Your task to perform on an android device: How much does the Samsung TV cost? Image 0: 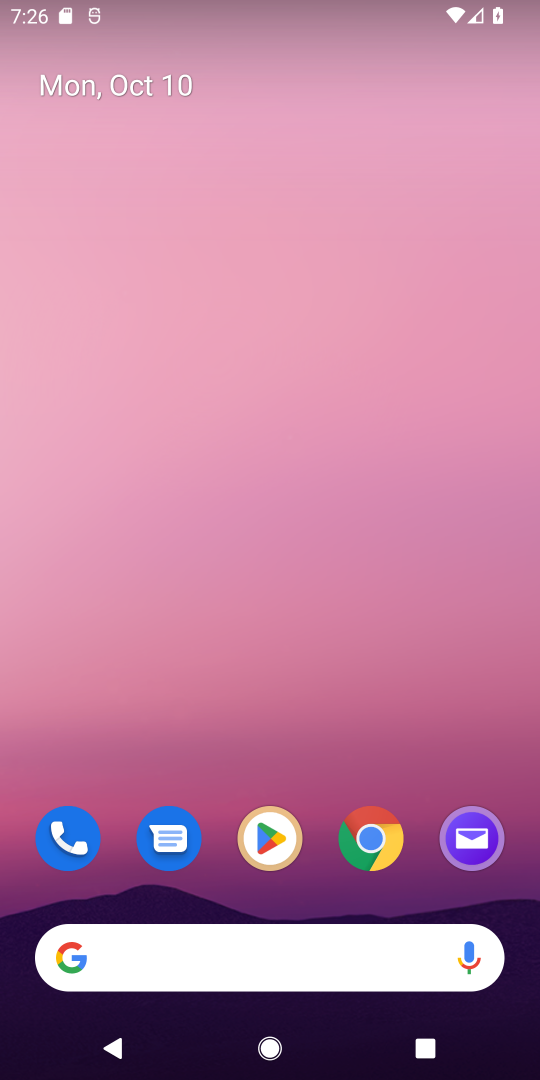
Step 0: click (371, 841)
Your task to perform on an android device: How much does the Samsung TV cost? Image 1: 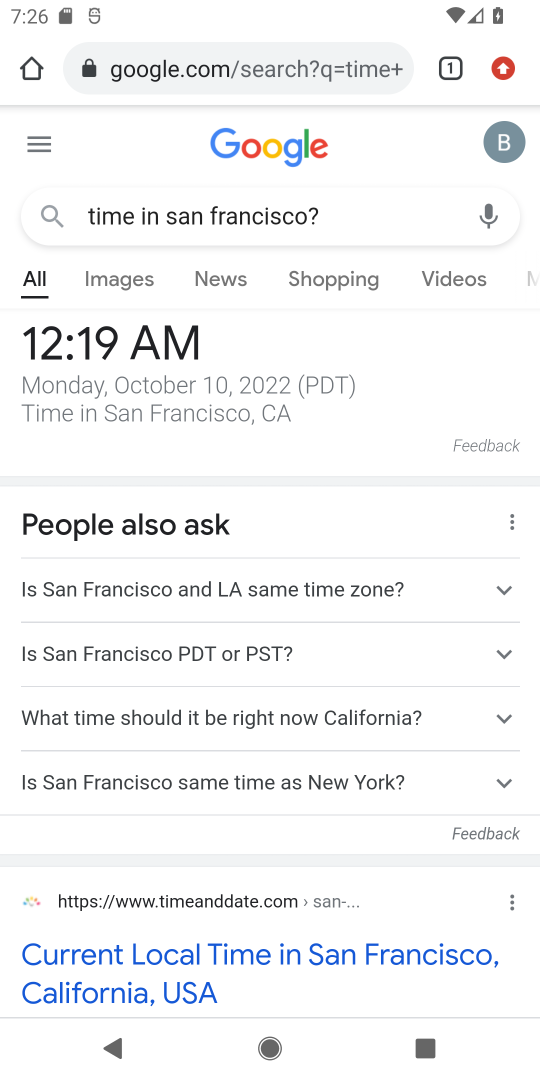
Step 1: click (222, 51)
Your task to perform on an android device: How much does the Samsung TV cost? Image 2: 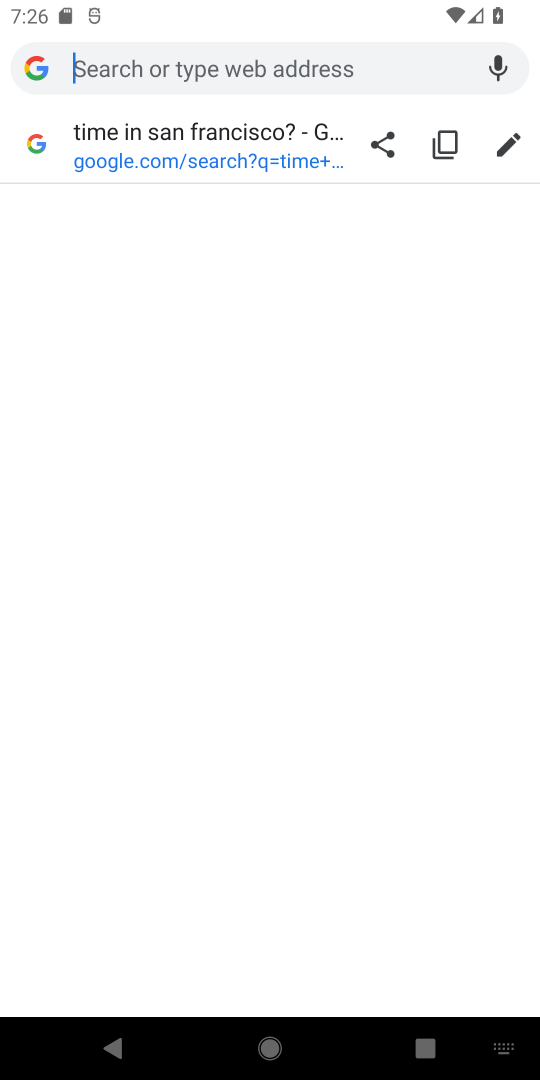
Step 2: type "Samsung TV cost?"
Your task to perform on an android device: How much does the Samsung TV cost? Image 3: 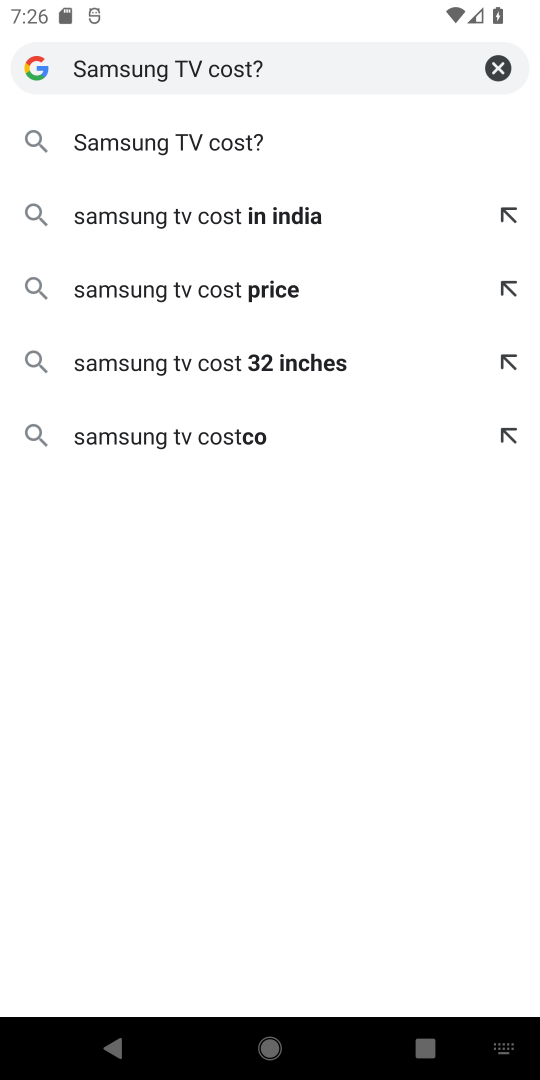
Step 3: click (153, 148)
Your task to perform on an android device: How much does the Samsung TV cost? Image 4: 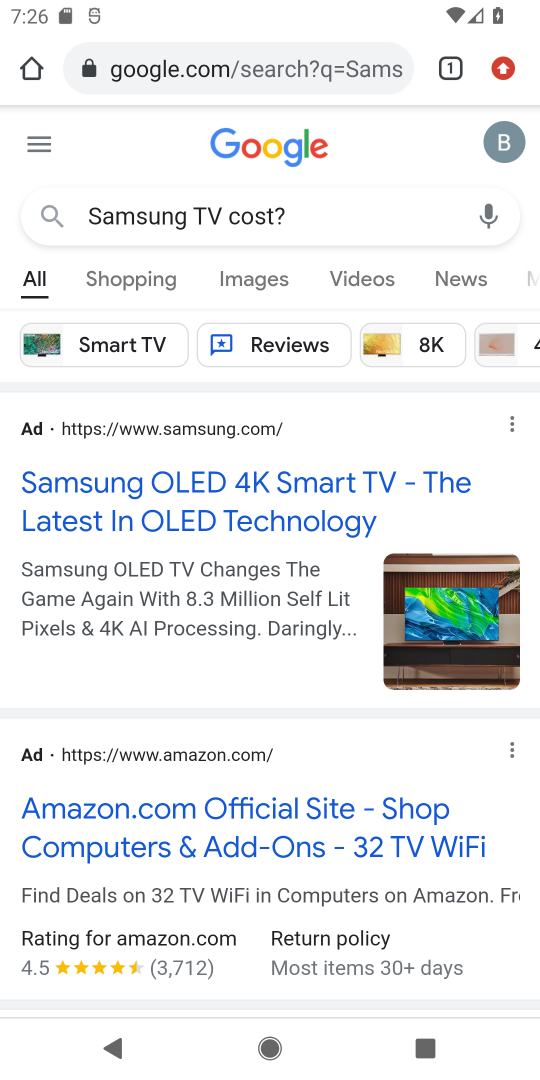
Step 4: click (96, 497)
Your task to perform on an android device: How much does the Samsung TV cost? Image 5: 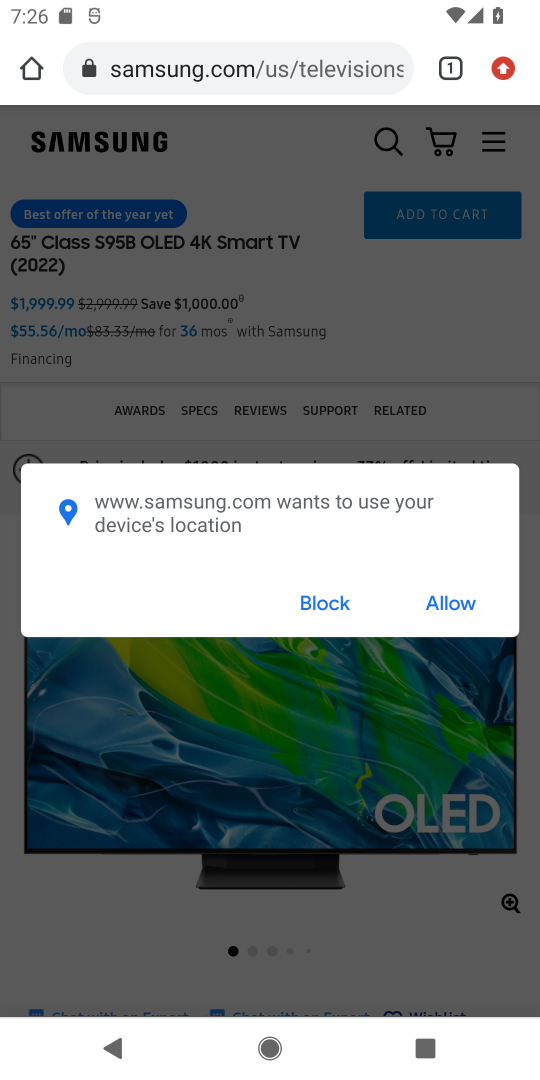
Step 5: click (314, 603)
Your task to perform on an android device: How much does the Samsung TV cost? Image 6: 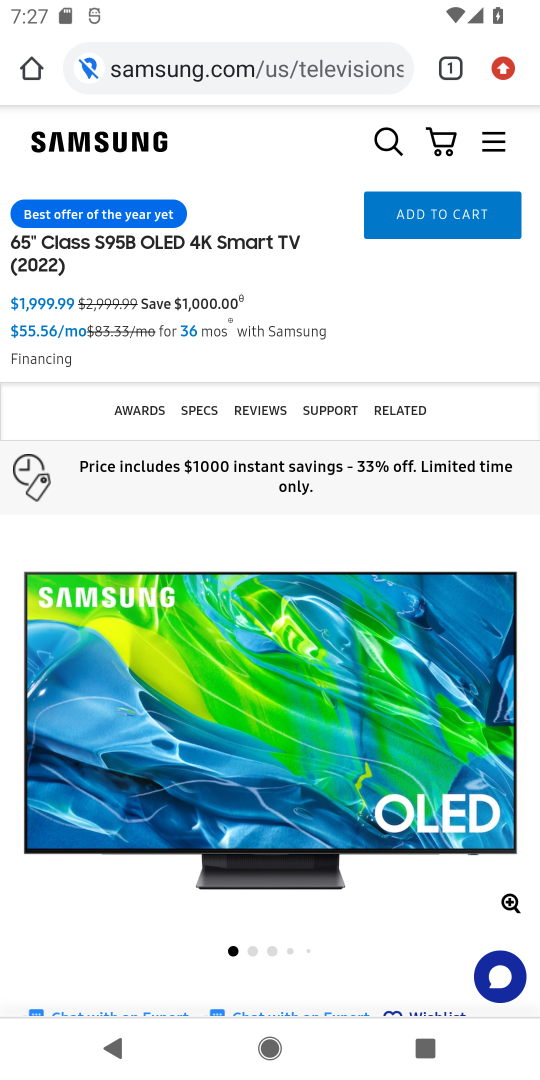
Step 6: task complete